Your task to perform on an android device: Is it going to rain today? Image 0: 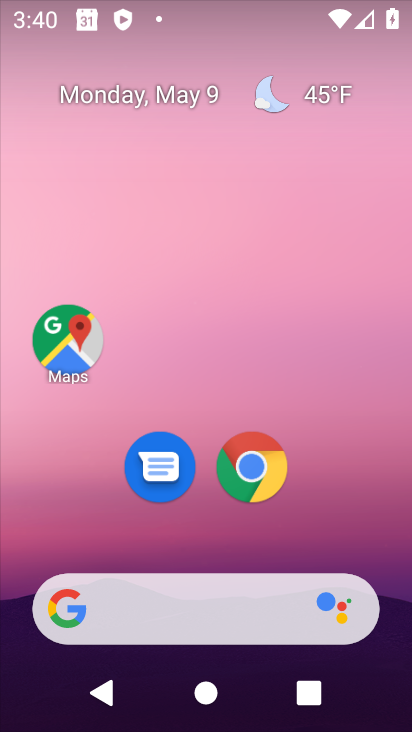
Step 0: click (252, 465)
Your task to perform on an android device: Is it going to rain today? Image 1: 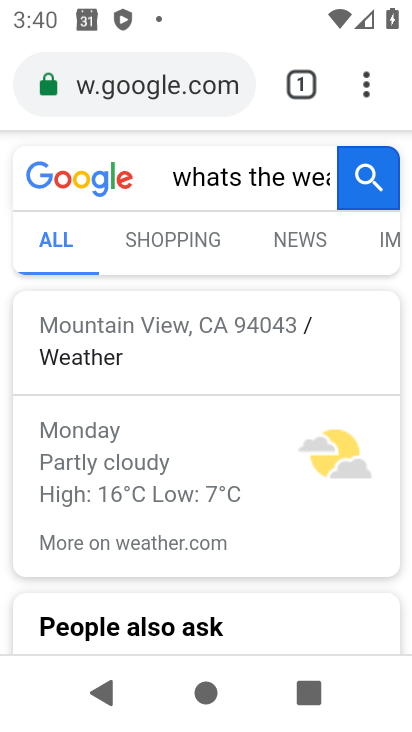
Step 1: click (203, 92)
Your task to perform on an android device: Is it going to rain today? Image 2: 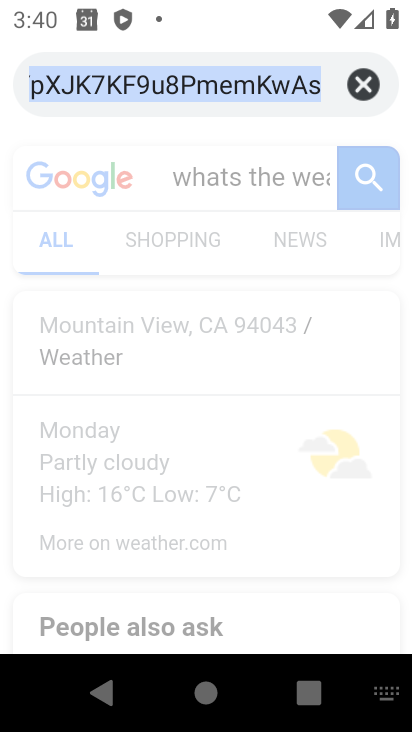
Step 2: type "is it going to rain today"
Your task to perform on an android device: Is it going to rain today? Image 3: 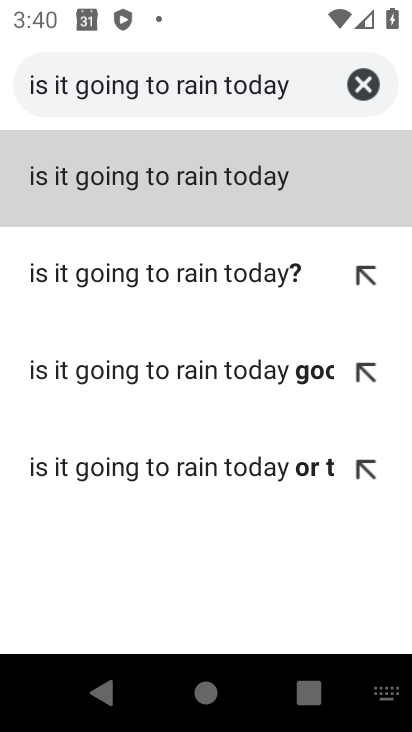
Step 3: click (222, 175)
Your task to perform on an android device: Is it going to rain today? Image 4: 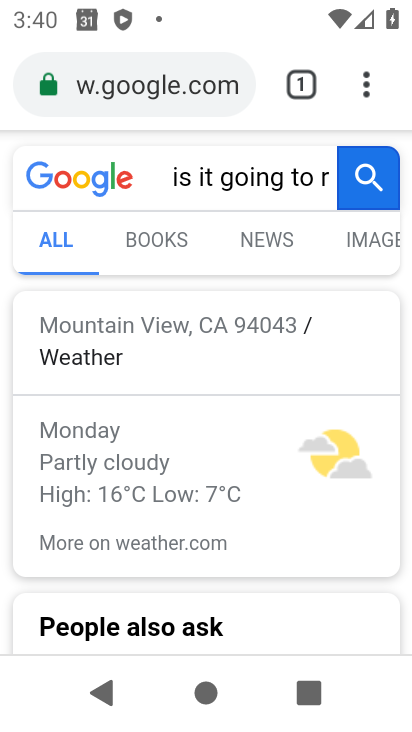
Step 4: task complete